Your task to perform on an android device: turn off smart reply in the gmail app Image 0: 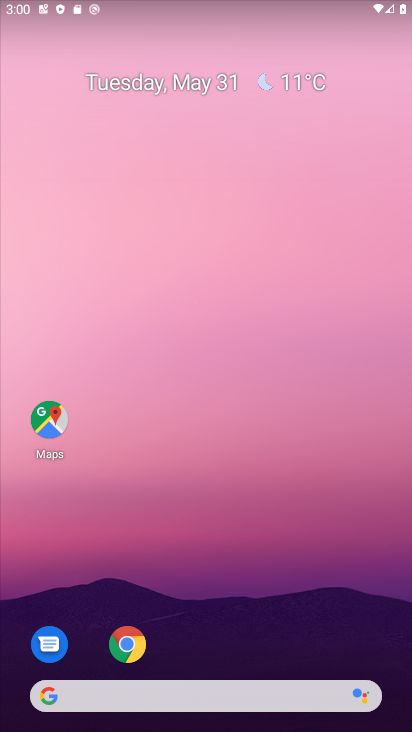
Step 0: drag from (226, 581) to (305, 186)
Your task to perform on an android device: turn off smart reply in the gmail app Image 1: 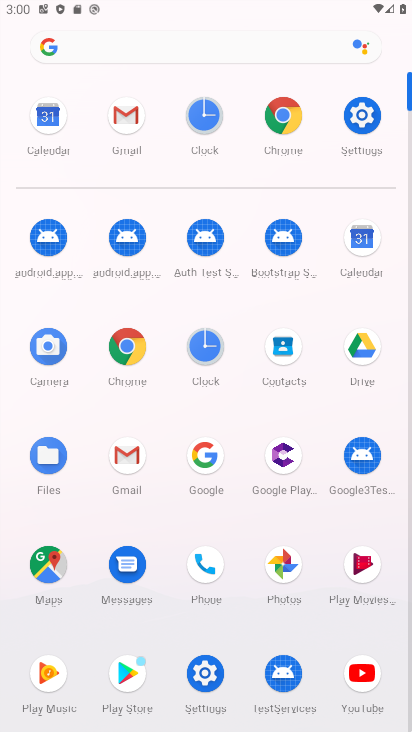
Step 1: click (113, 110)
Your task to perform on an android device: turn off smart reply in the gmail app Image 2: 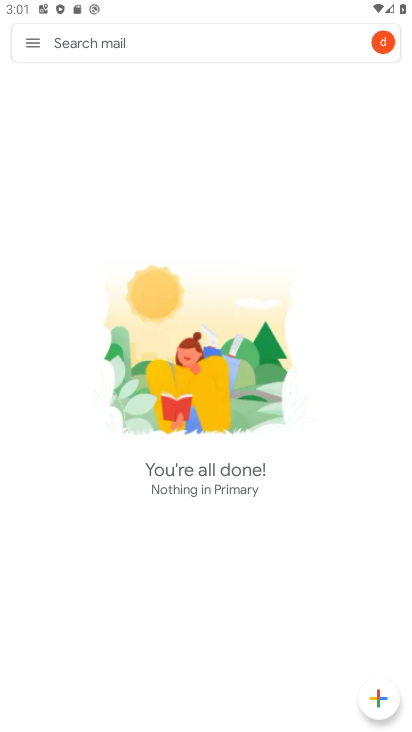
Step 2: click (29, 39)
Your task to perform on an android device: turn off smart reply in the gmail app Image 3: 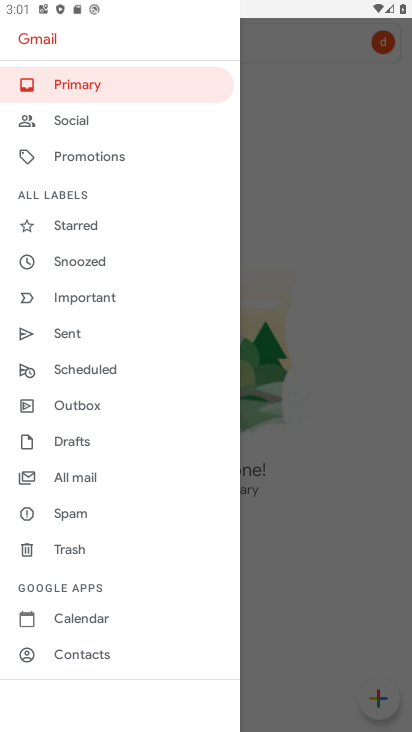
Step 3: drag from (116, 573) to (187, 217)
Your task to perform on an android device: turn off smart reply in the gmail app Image 4: 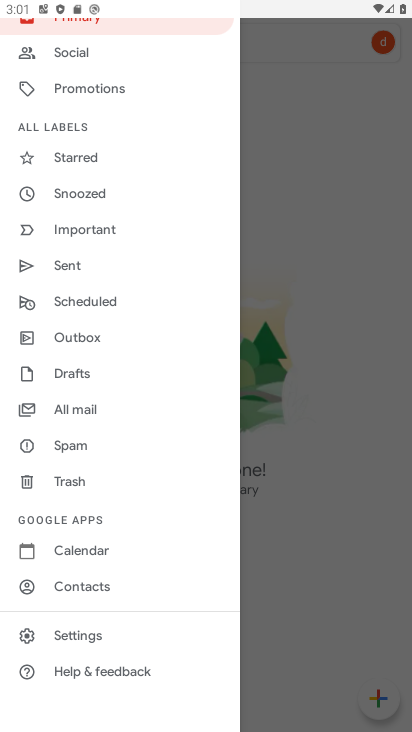
Step 4: click (94, 633)
Your task to perform on an android device: turn off smart reply in the gmail app Image 5: 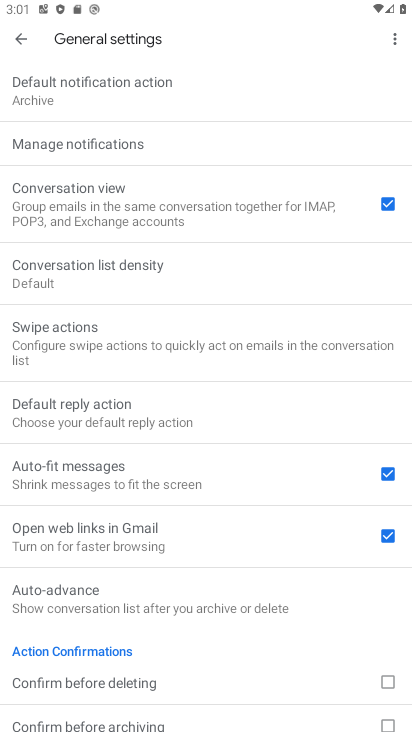
Step 5: drag from (116, 532) to (142, 328)
Your task to perform on an android device: turn off smart reply in the gmail app Image 6: 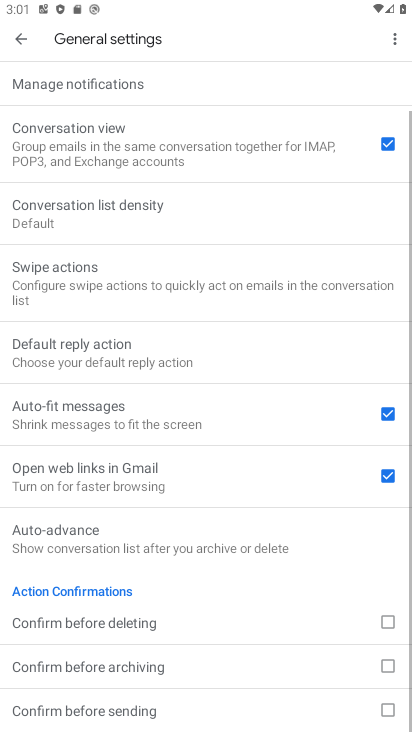
Step 6: drag from (157, 344) to (193, 472)
Your task to perform on an android device: turn off smart reply in the gmail app Image 7: 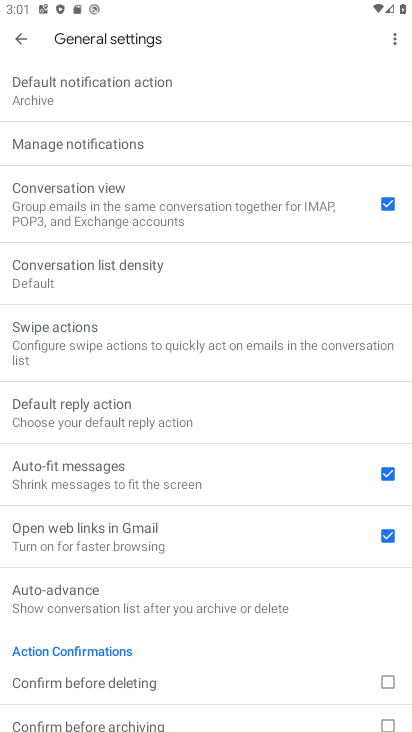
Step 7: drag from (180, 174) to (179, 468)
Your task to perform on an android device: turn off smart reply in the gmail app Image 8: 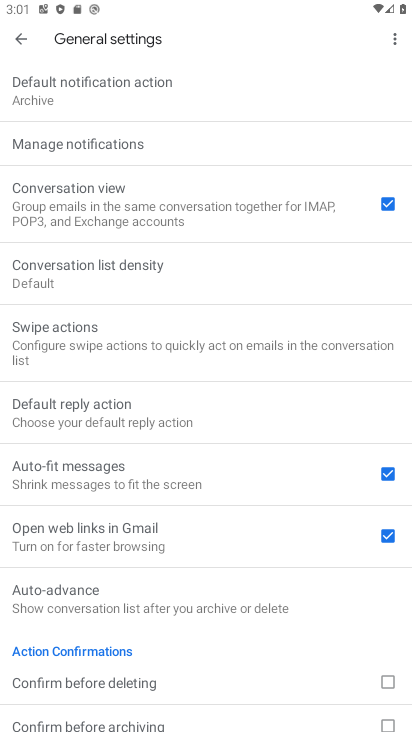
Step 8: drag from (163, 613) to (187, 290)
Your task to perform on an android device: turn off smart reply in the gmail app Image 9: 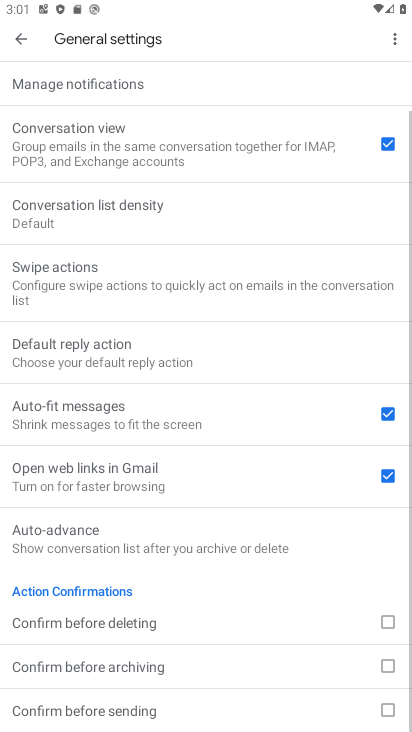
Step 9: drag from (242, 199) to (225, 553)
Your task to perform on an android device: turn off smart reply in the gmail app Image 10: 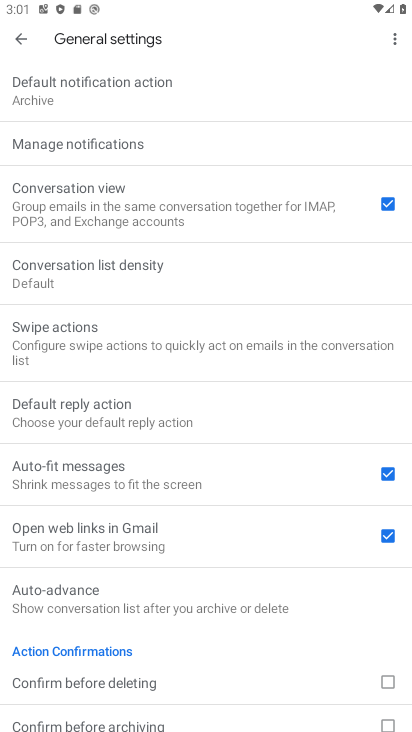
Step 10: click (206, 94)
Your task to perform on an android device: turn off smart reply in the gmail app Image 11: 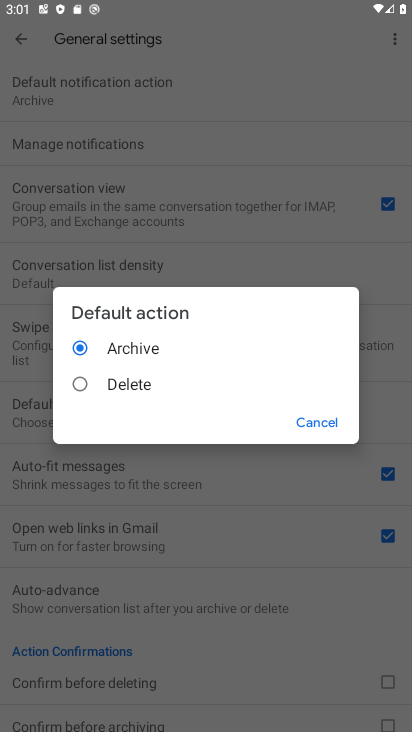
Step 11: click (305, 413)
Your task to perform on an android device: turn off smart reply in the gmail app Image 12: 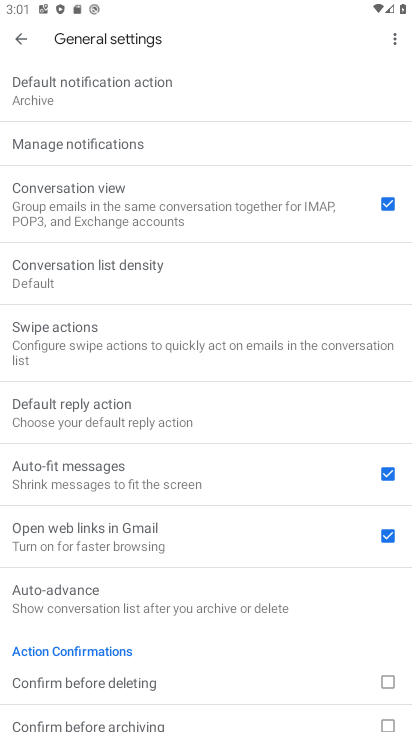
Step 12: click (117, 334)
Your task to perform on an android device: turn off smart reply in the gmail app Image 13: 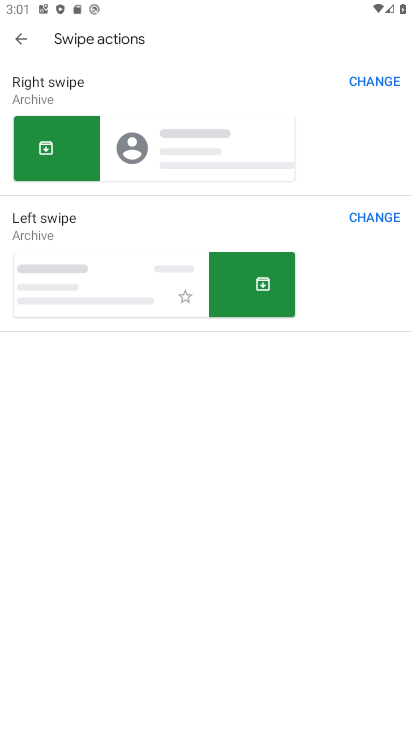
Step 13: press back button
Your task to perform on an android device: turn off smart reply in the gmail app Image 14: 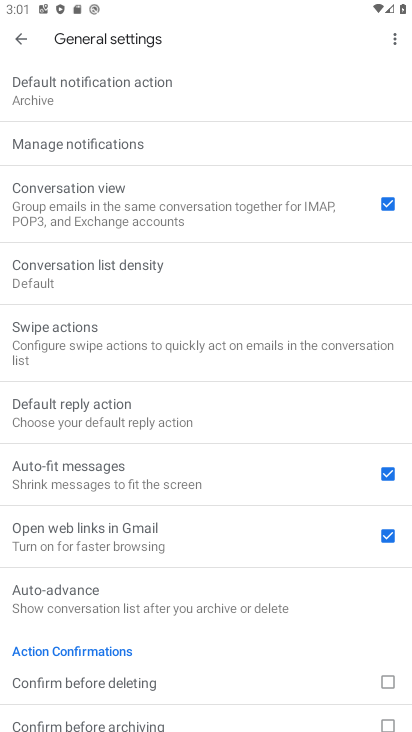
Step 14: click (401, 41)
Your task to perform on an android device: turn off smart reply in the gmail app Image 15: 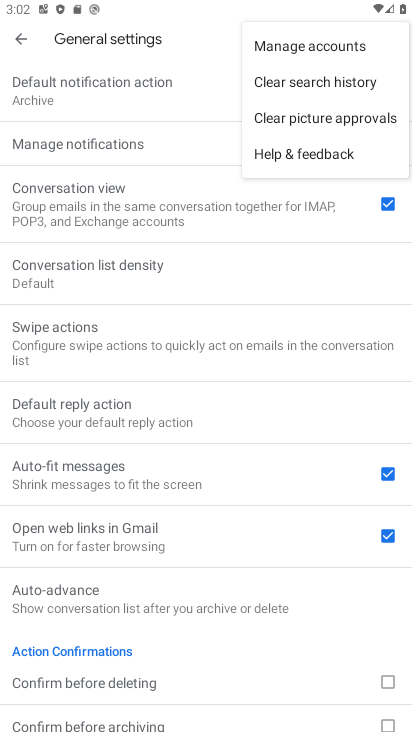
Step 15: click (317, 44)
Your task to perform on an android device: turn off smart reply in the gmail app Image 16: 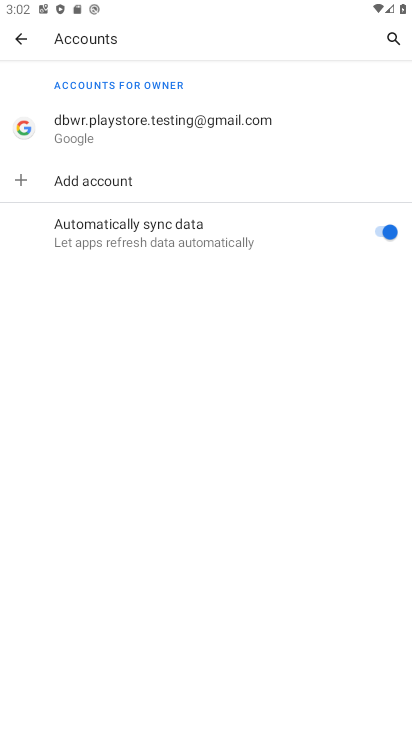
Step 16: task complete